Your task to perform on an android device: add a contact Image 0: 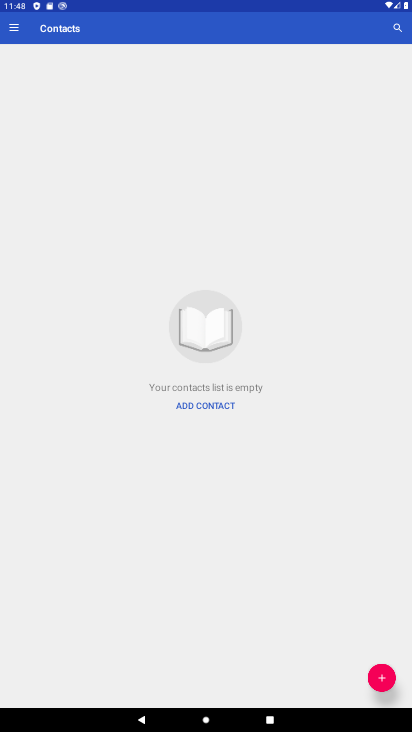
Step 0: click (383, 680)
Your task to perform on an android device: add a contact Image 1: 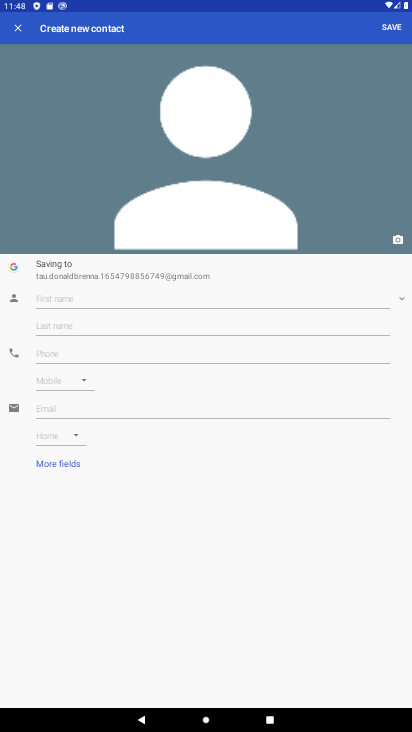
Step 1: type "Yoko"
Your task to perform on an android device: add a contact Image 2: 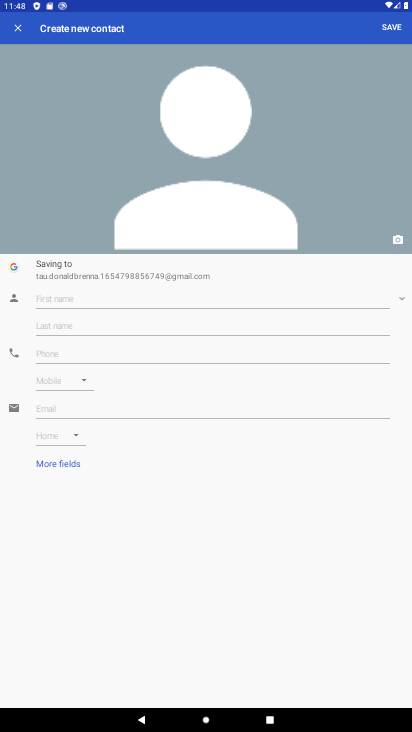
Step 2: click (95, 294)
Your task to perform on an android device: add a contact Image 3: 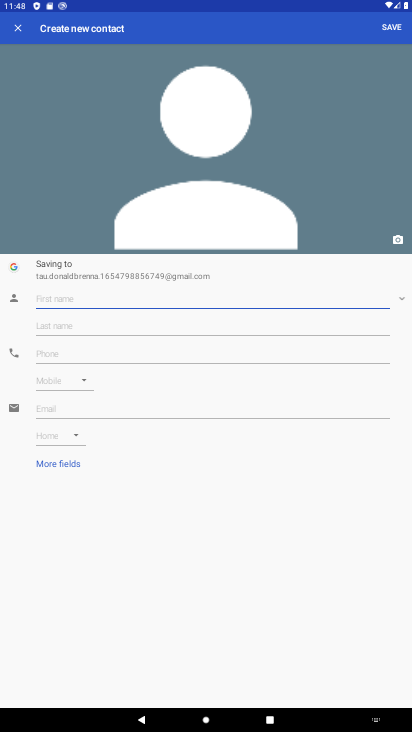
Step 3: type "Yoko"
Your task to perform on an android device: add a contact Image 4: 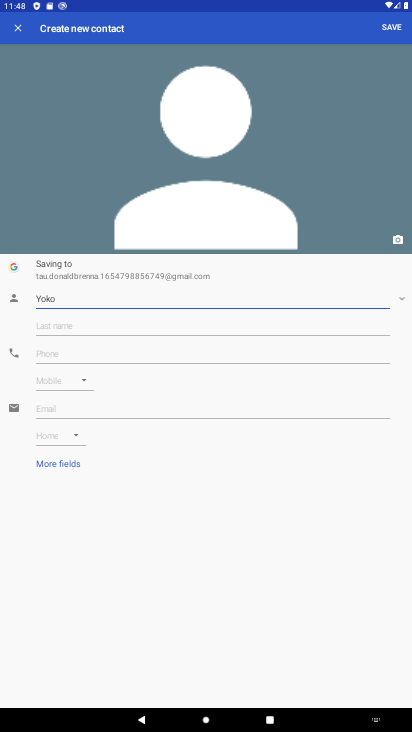
Step 4: click (83, 342)
Your task to perform on an android device: add a contact Image 5: 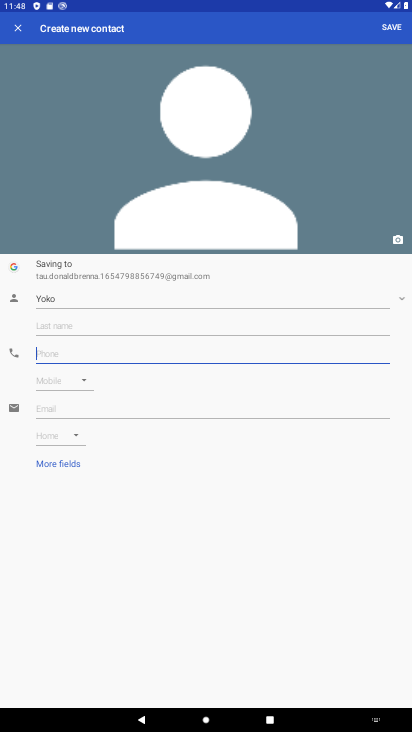
Step 5: type "898977665"
Your task to perform on an android device: add a contact Image 6: 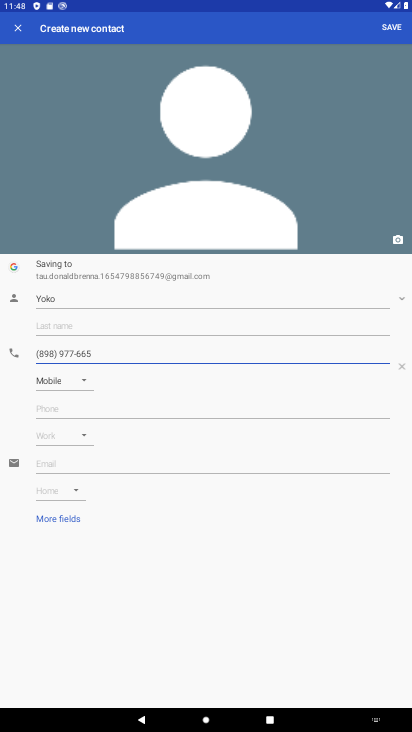
Step 6: click (383, 31)
Your task to perform on an android device: add a contact Image 7: 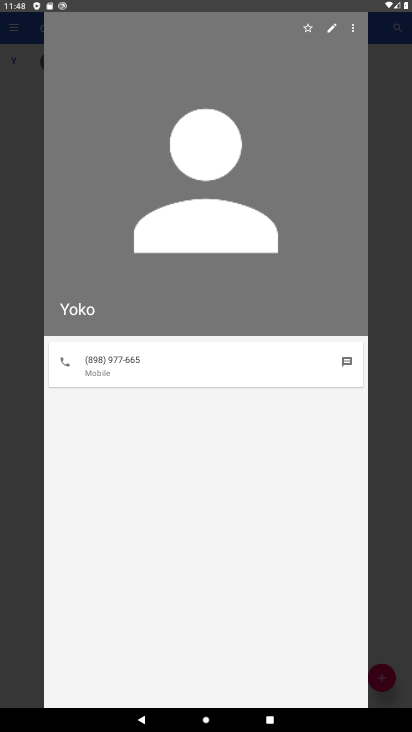
Step 7: task complete